Your task to perform on an android device: add a contact Image 0: 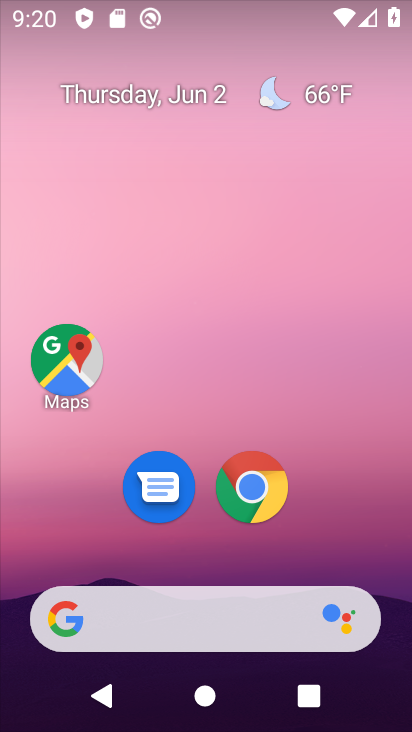
Step 0: drag from (230, 724) to (201, 69)
Your task to perform on an android device: add a contact Image 1: 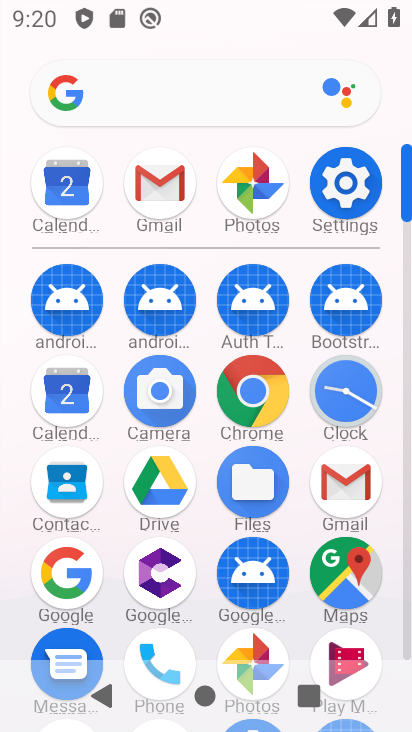
Step 1: click (74, 477)
Your task to perform on an android device: add a contact Image 2: 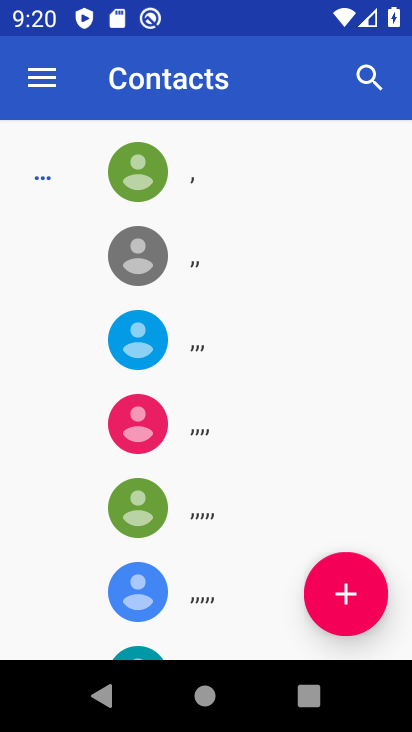
Step 2: click (337, 584)
Your task to perform on an android device: add a contact Image 3: 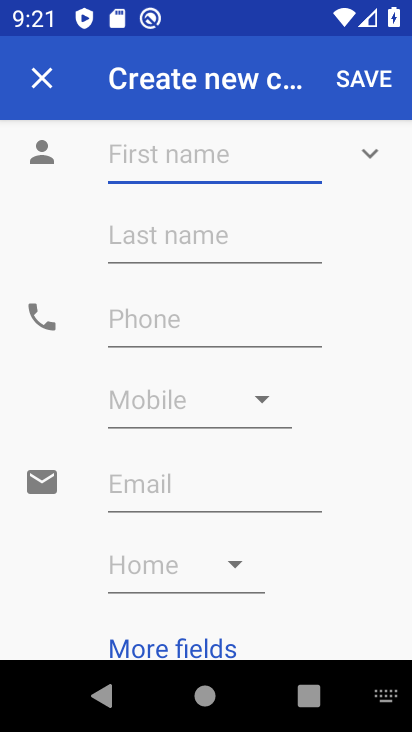
Step 3: type "talwar"
Your task to perform on an android device: add a contact Image 4: 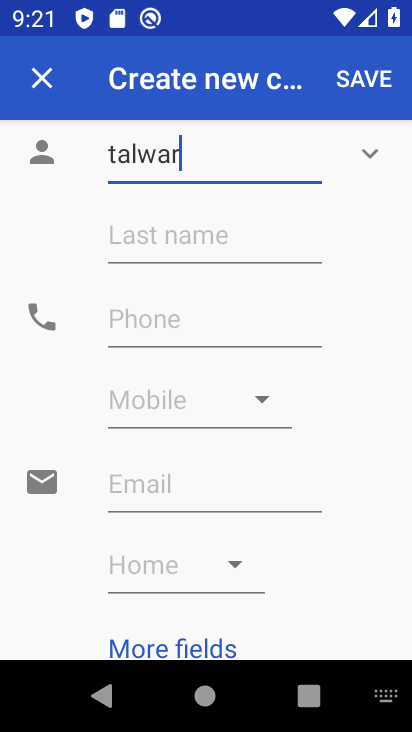
Step 4: click (145, 330)
Your task to perform on an android device: add a contact Image 5: 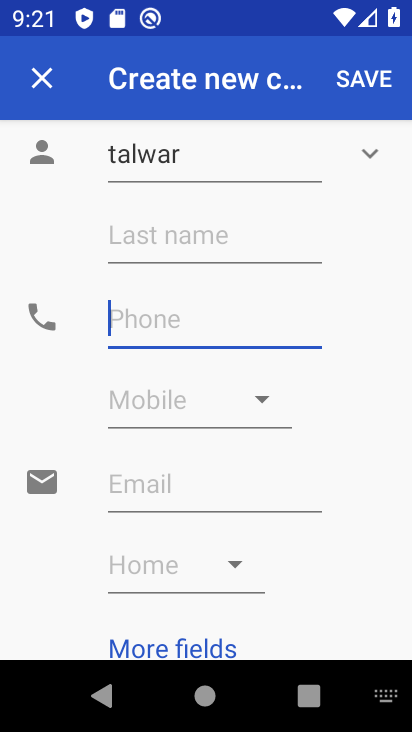
Step 5: type "9098765"
Your task to perform on an android device: add a contact Image 6: 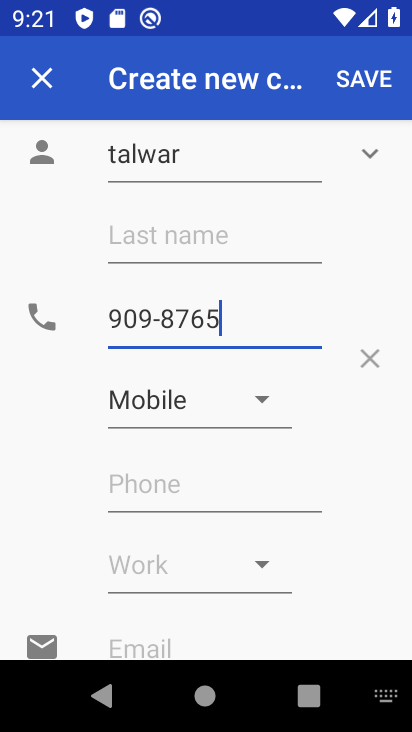
Step 6: click (350, 82)
Your task to perform on an android device: add a contact Image 7: 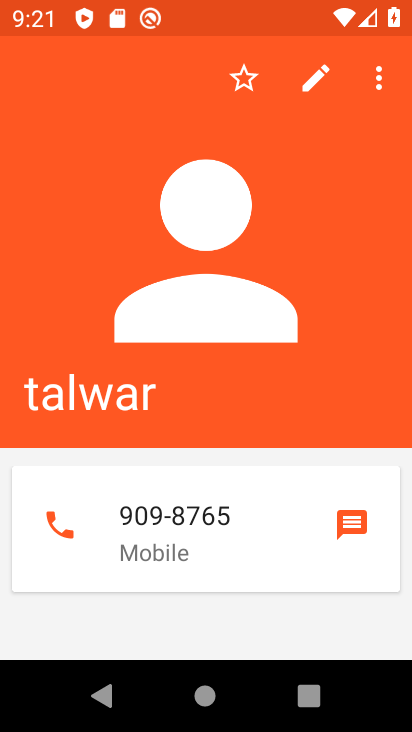
Step 7: task complete